Your task to perform on an android device: check the backup settings in the google photos Image 0: 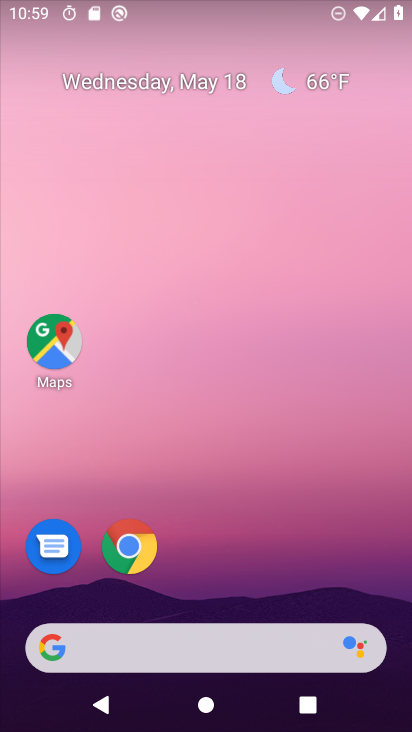
Step 0: drag from (153, 608) to (168, 16)
Your task to perform on an android device: check the backup settings in the google photos Image 1: 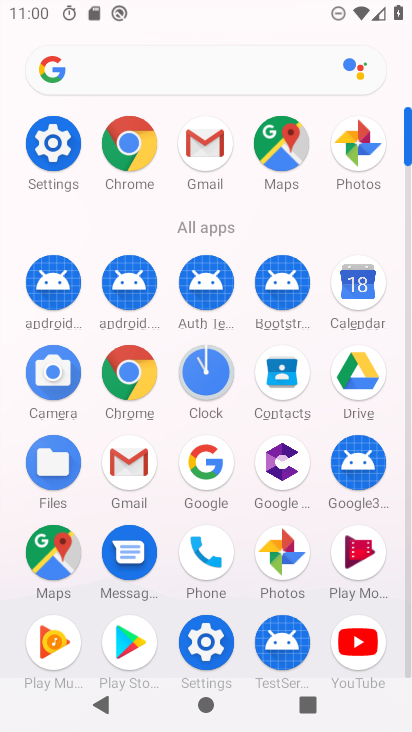
Step 1: click (347, 129)
Your task to perform on an android device: check the backup settings in the google photos Image 2: 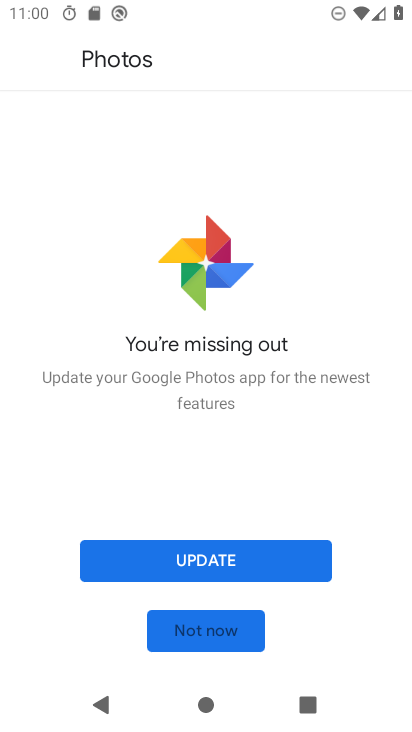
Step 2: click (190, 623)
Your task to perform on an android device: check the backup settings in the google photos Image 3: 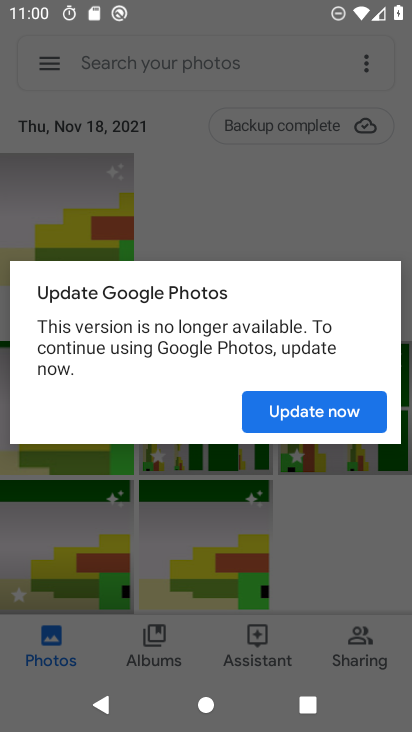
Step 3: click (245, 421)
Your task to perform on an android device: check the backup settings in the google photos Image 4: 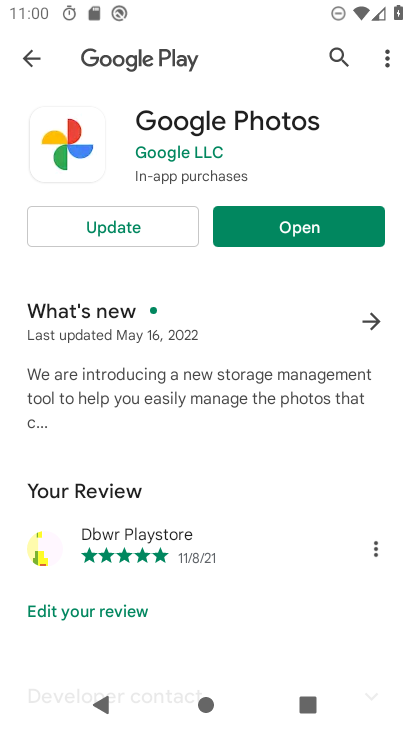
Step 4: click (261, 215)
Your task to perform on an android device: check the backup settings in the google photos Image 5: 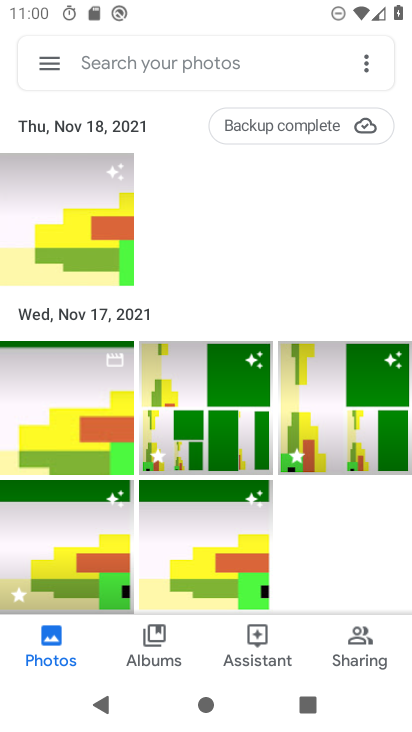
Step 5: click (44, 75)
Your task to perform on an android device: check the backup settings in the google photos Image 6: 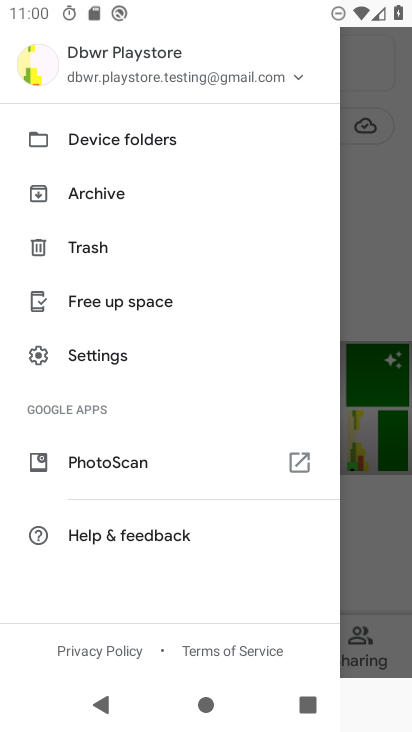
Step 6: click (112, 373)
Your task to perform on an android device: check the backup settings in the google photos Image 7: 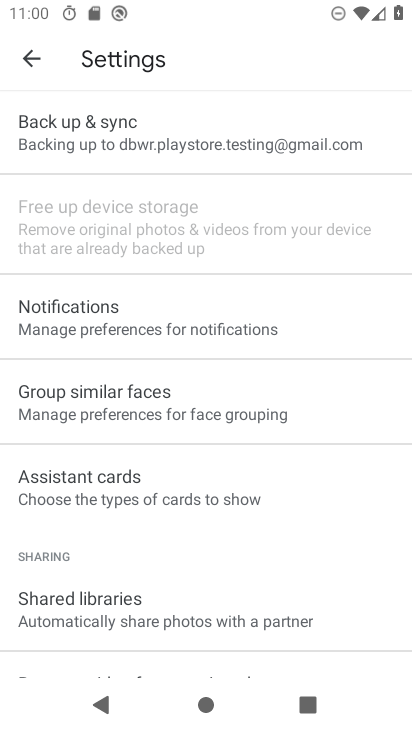
Step 7: click (94, 124)
Your task to perform on an android device: check the backup settings in the google photos Image 8: 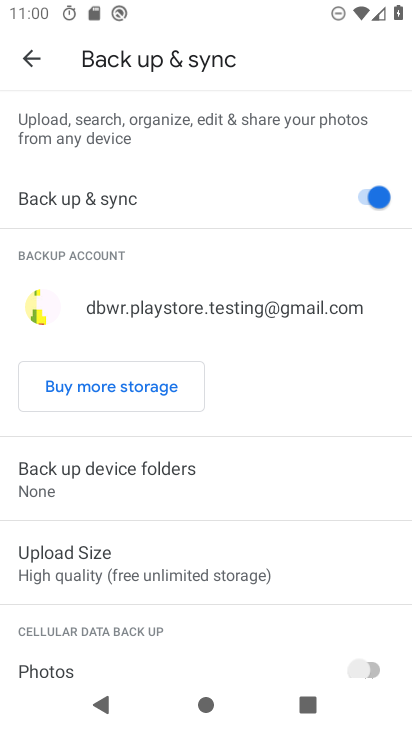
Step 8: click (126, 576)
Your task to perform on an android device: check the backup settings in the google photos Image 9: 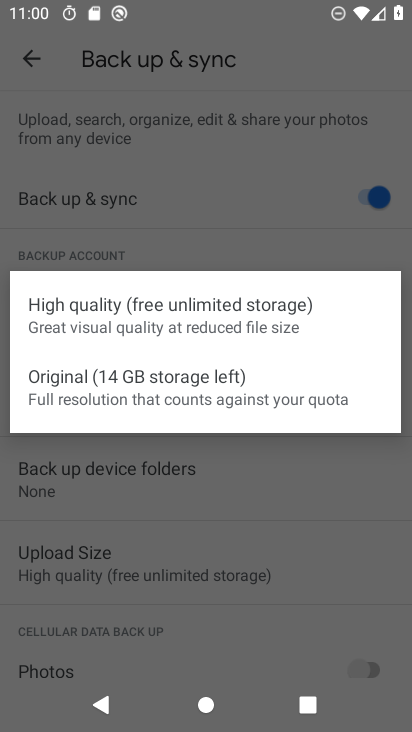
Step 9: click (134, 391)
Your task to perform on an android device: check the backup settings in the google photos Image 10: 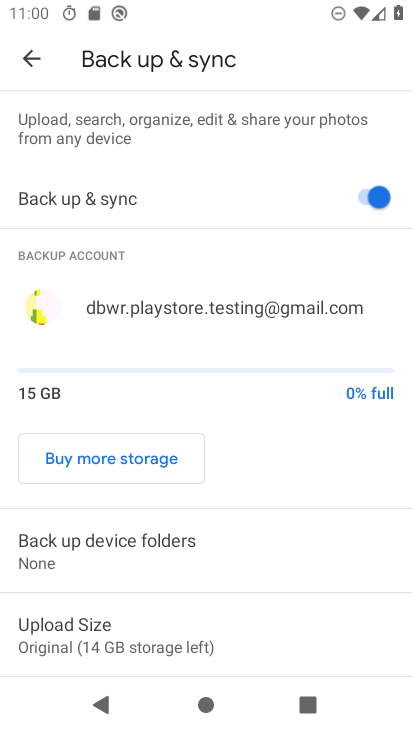
Step 10: task complete